Your task to perform on an android device: Open the Play Movies app and select the watchlist tab. Image 0: 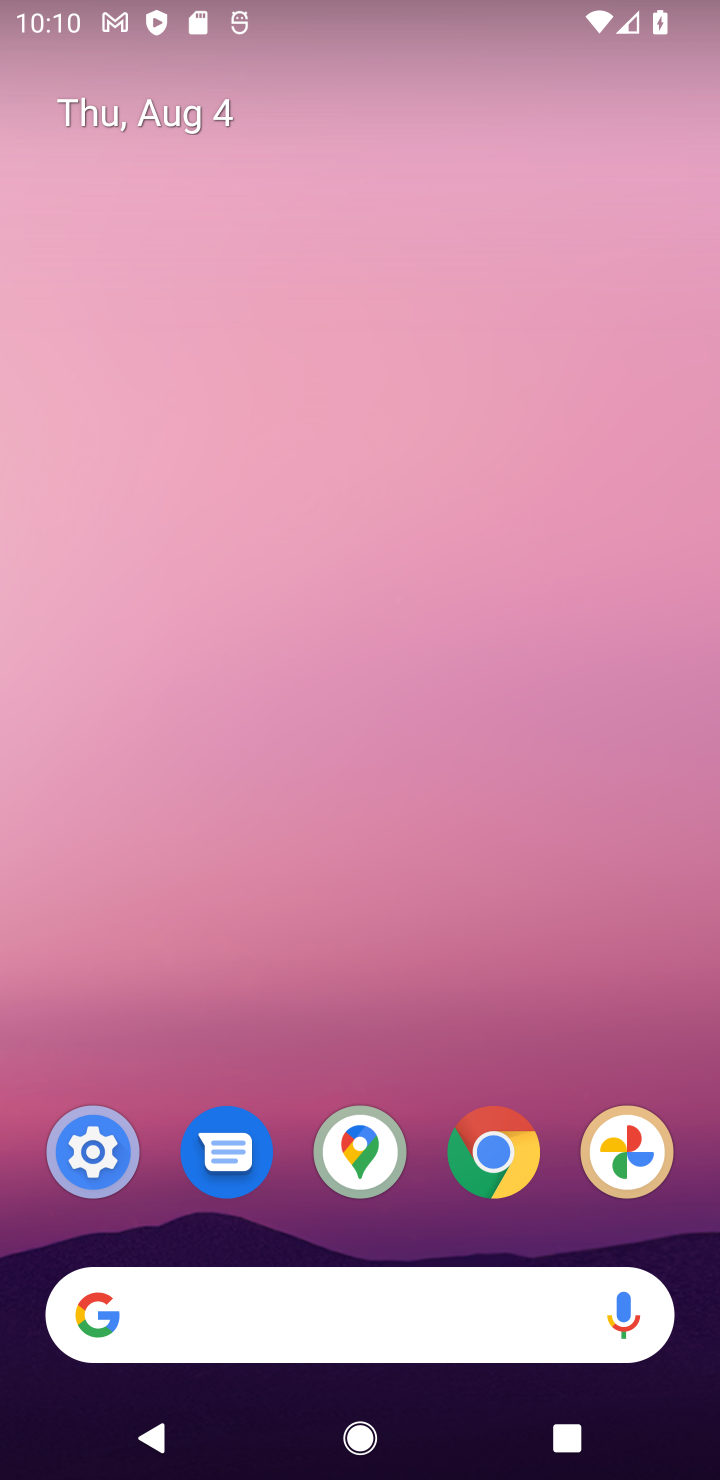
Step 0: drag from (425, 1127) to (446, 479)
Your task to perform on an android device: Open the Play Movies app and select the watchlist tab. Image 1: 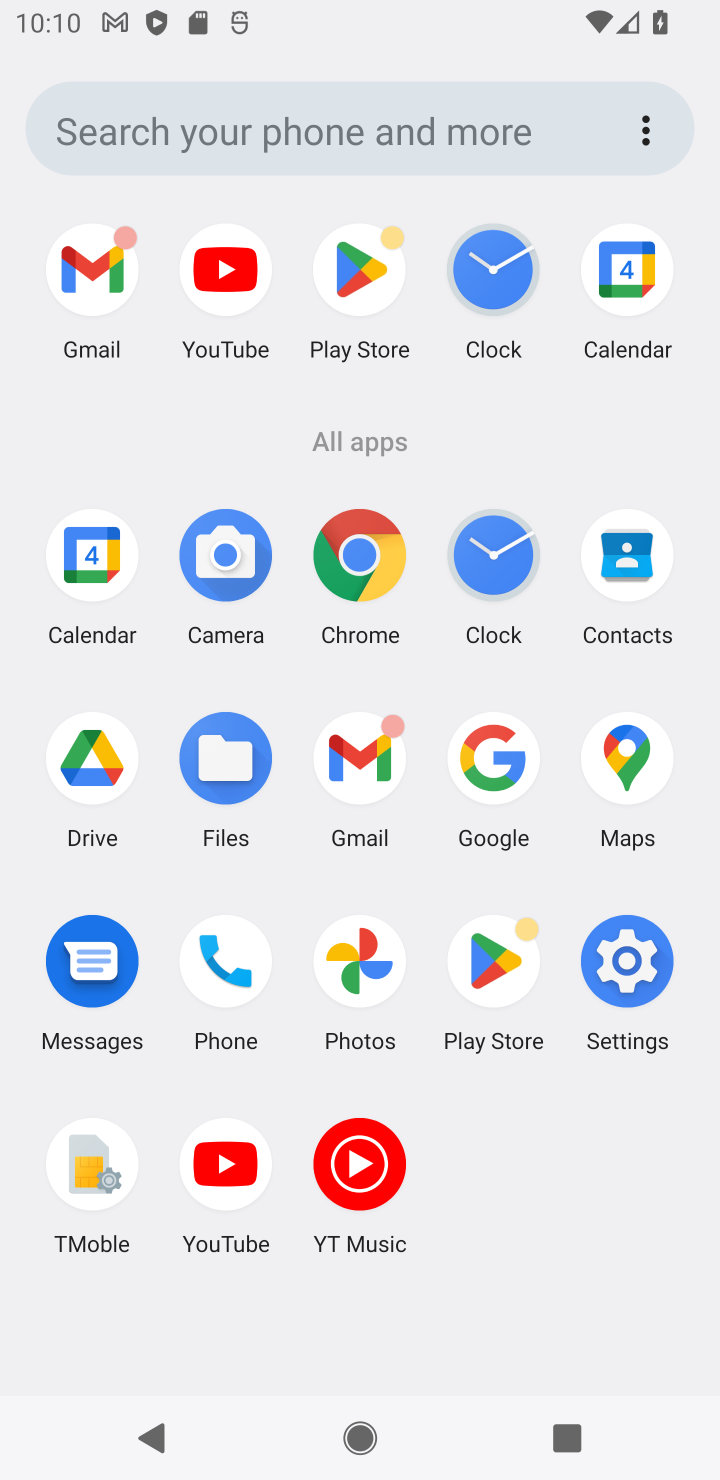
Step 1: click (469, 975)
Your task to perform on an android device: Open the Play Movies app and select the watchlist tab. Image 2: 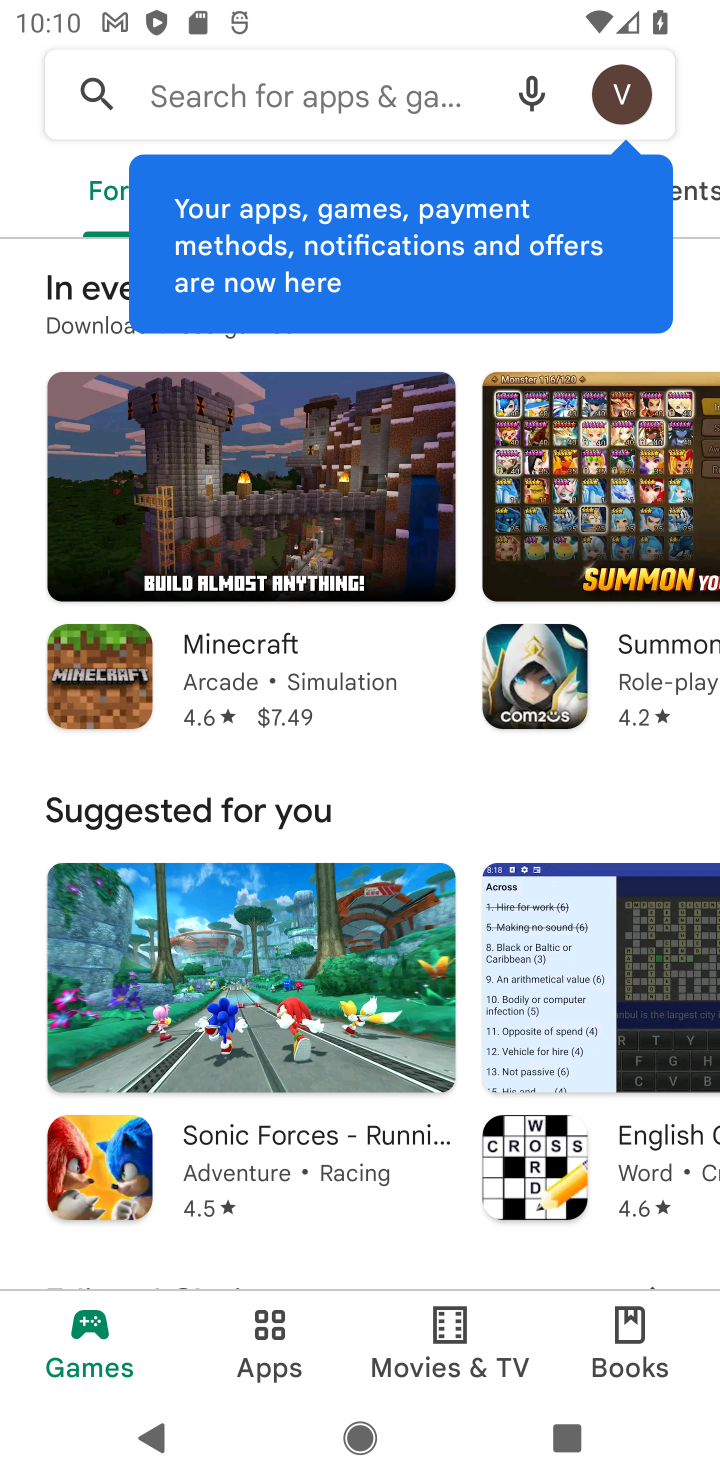
Step 2: task complete